Your task to perform on an android device: Go to internet settings Image 0: 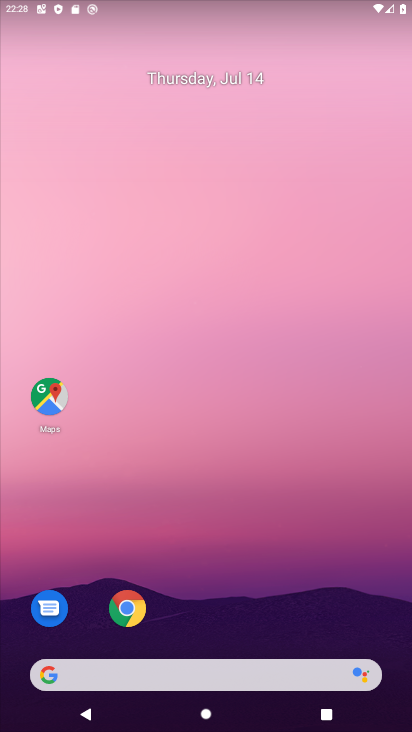
Step 0: drag from (187, 294) to (194, 147)
Your task to perform on an android device: Go to internet settings Image 1: 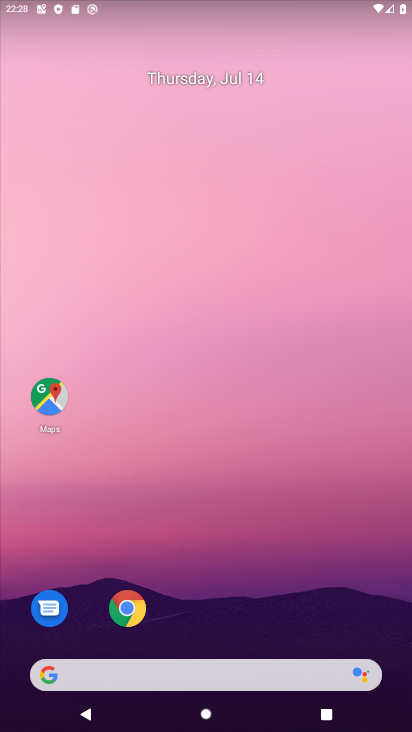
Step 1: drag from (181, 584) to (168, 229)
Your task to perform on an android device: Go to internet settings Image 2: 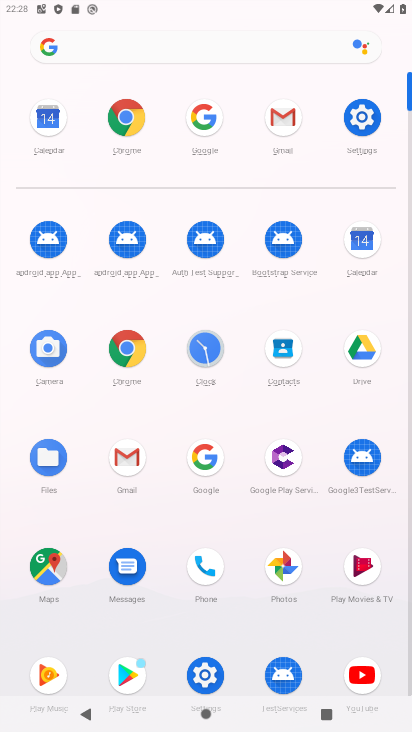
Step 2: click (354, 129)
Your task to perform on an android device: Go to internet settings Image 3: 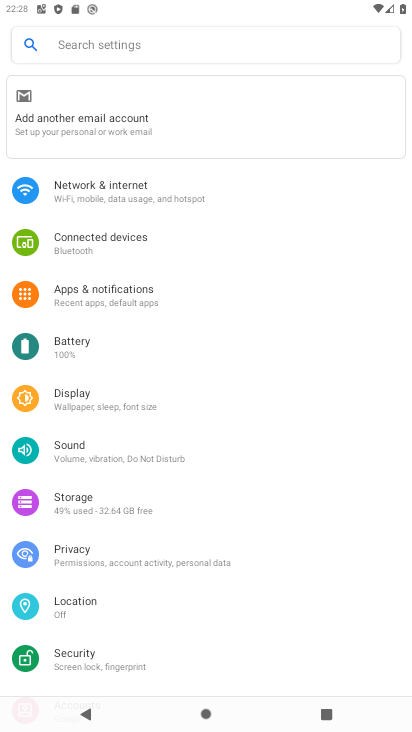
Step 3: click (134, 212)
Your task to perform on an android device: Go to internet settings Image 4: 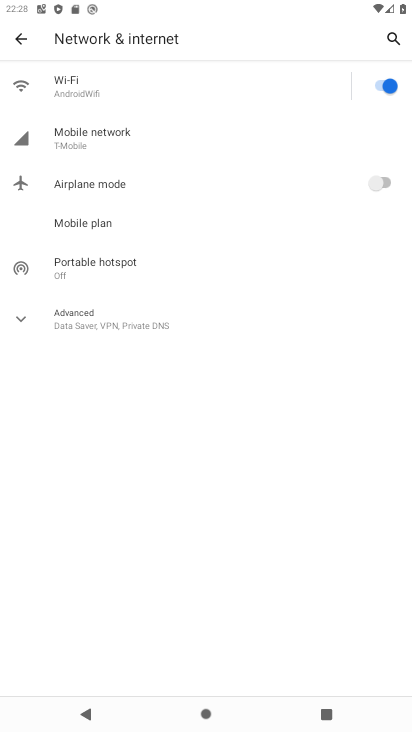
Step 4: task complete